Your task to perform on an android device: set default search engine in the chrome app Image 0: 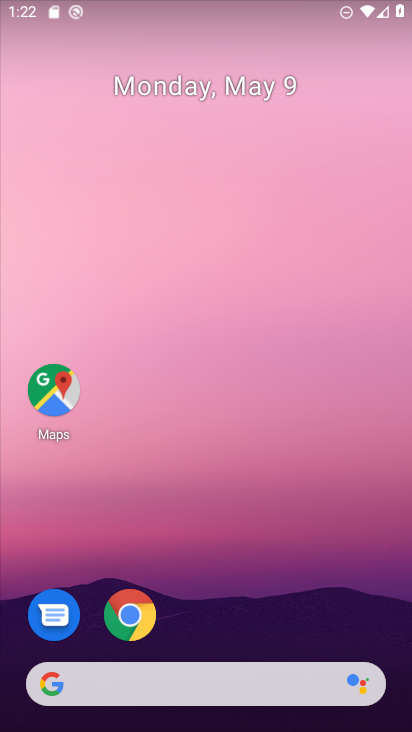
Step 0: click (128, 611)
Your task to perform on an android device: set default search engine in the chrome app Image 1: 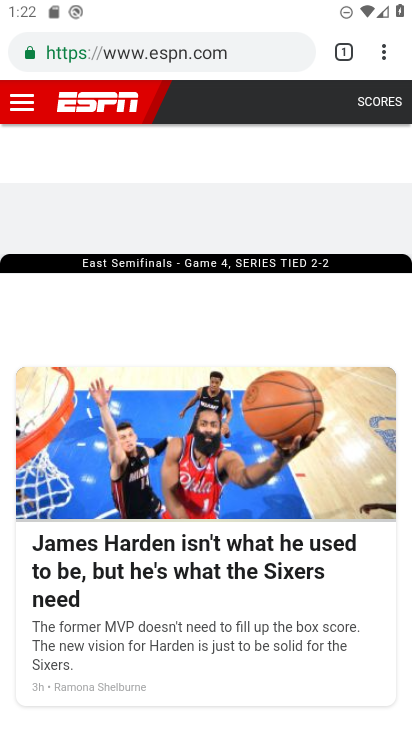
Step 1: click (384, 55)
Your task to perform on an android device: set default search engine in the chrome app Image 2: 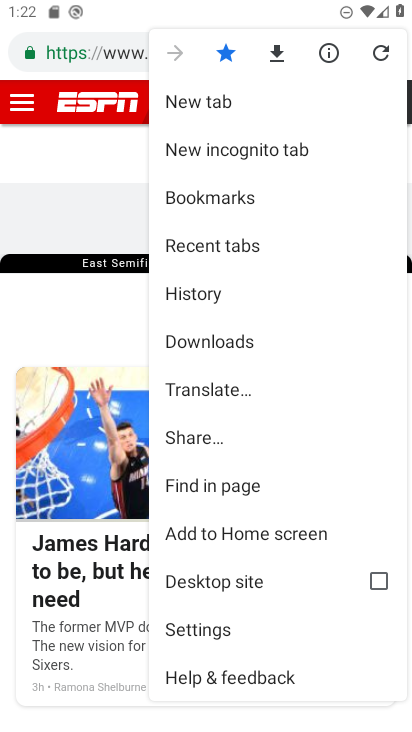
Step 2: click (202, 627)
Your task to perform on an android device: set default search engine in the chrome app Image 3: 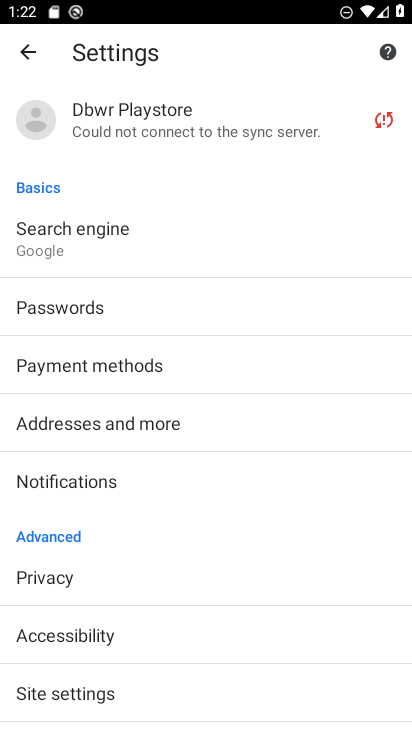
Step 3: click (110, 231)
Your task to perform on an android device: set default search engine in the chrome app Image 4: 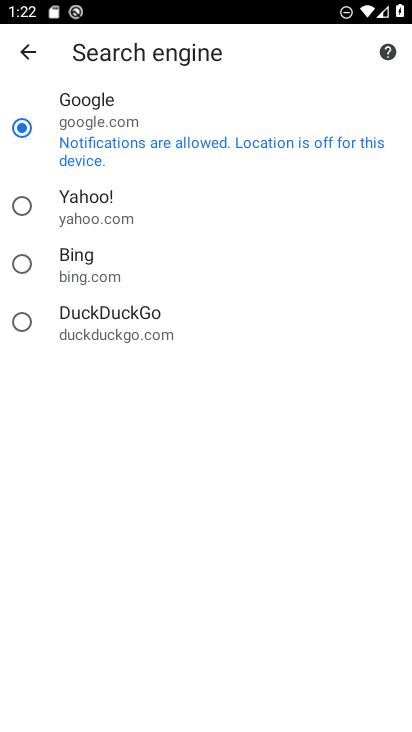
Step 4: click (22, 212)
Your task to perform on an android device: set default search engine in the chrome app Image 5: 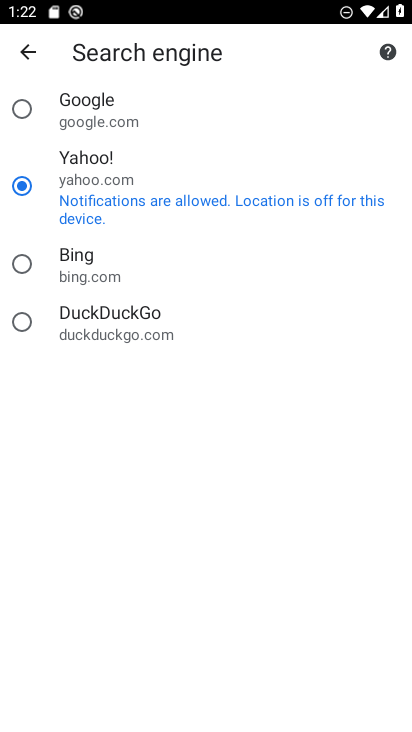
Step 5: task complete